Your task to perform on an android device: Open the web browser Image 0: 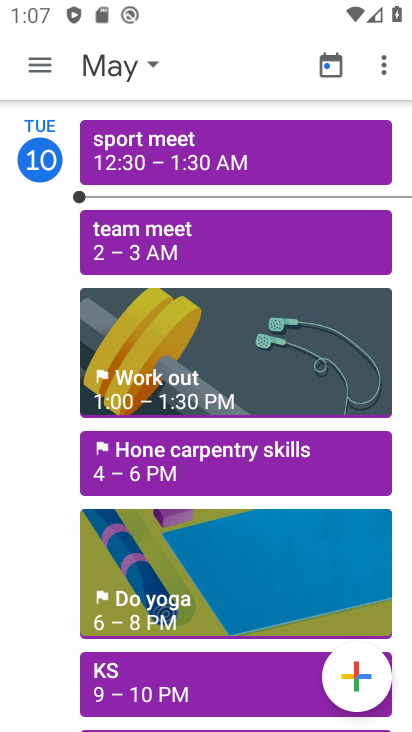
Step 0: press home button
Your task to perform on an android device: Open the web browser Image 1: 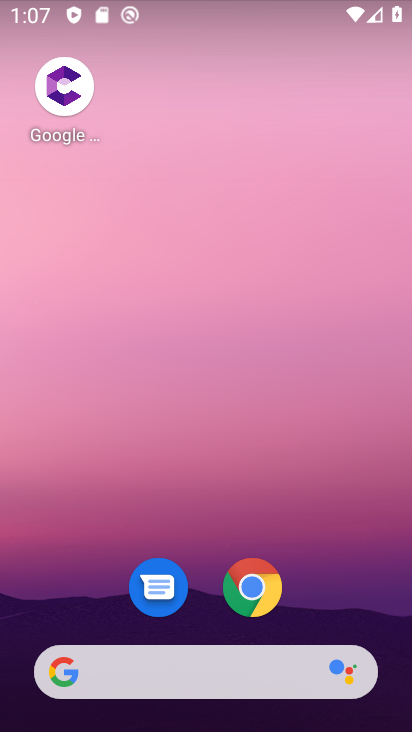
Step 1: click (251, 650)
Your task to perform on an android device: Open the web browser Image 2: 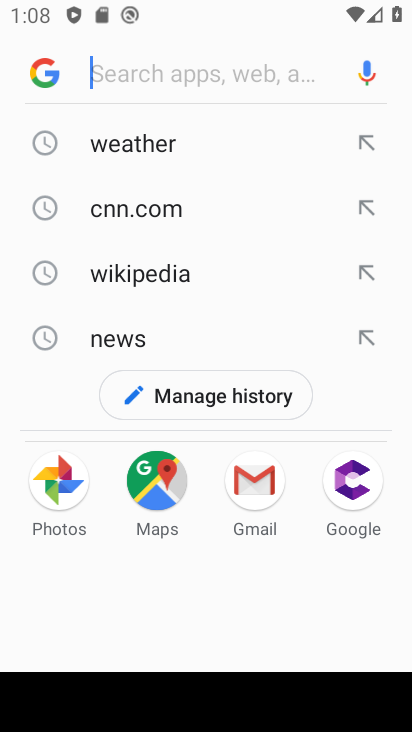
Step 2: task complete